Your task to perform on an android device: toggle airplane mode Image 0: 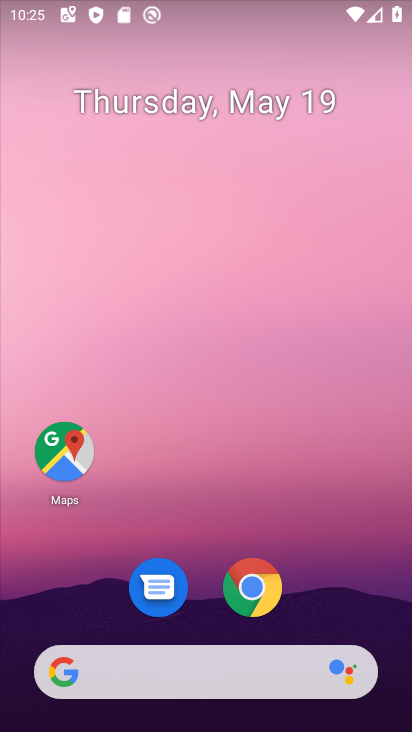
Step 0: drag from (362, 594) to (345, 190)
Your task to perform on an android device: toggle airplane mode Image 1: 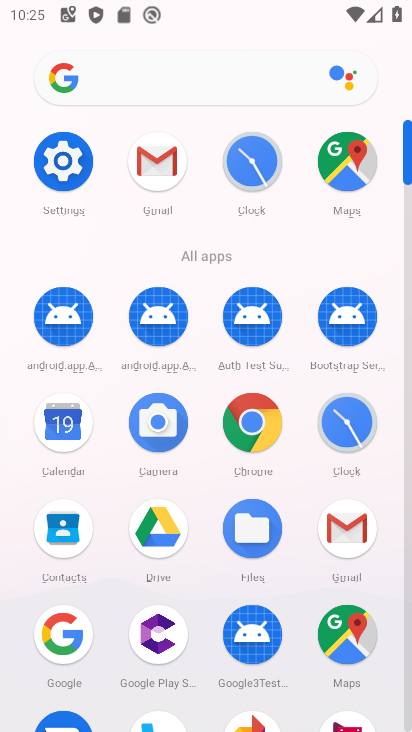
Step 1: click (46, 150)
Your task to perform on an android device: toggle airplane mode Image 2: 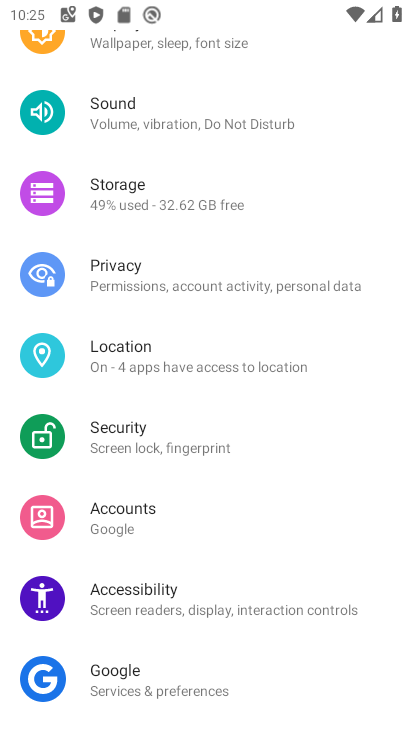
Step 2: drag from (131, 179) to (193, 614)
Your task to perform on an android device: toggle airplane mode Image 3: 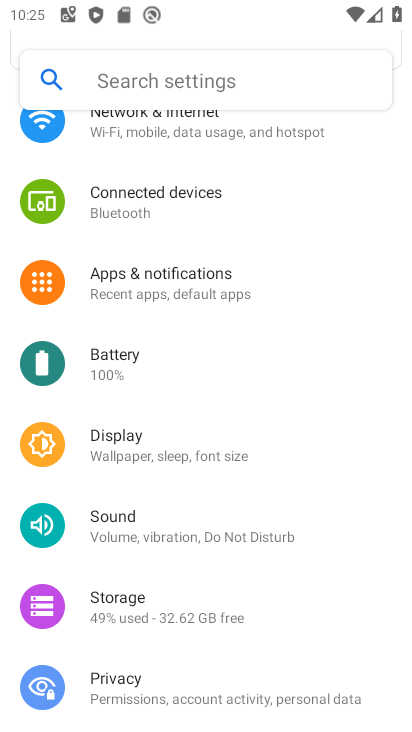
Step 3: drag from (216, 274) to (254, 519)
Your task to perform on an android device: toggle airplane mode Image 4: 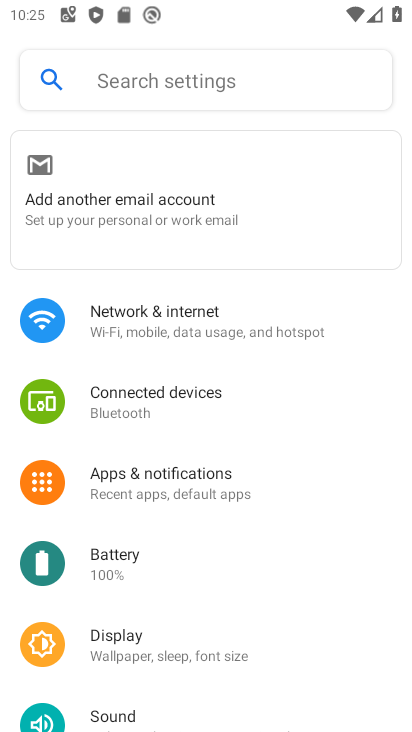
Step 4: click (219, 321)
Your task to perform on an android device: toggle airplane mode Image 5: 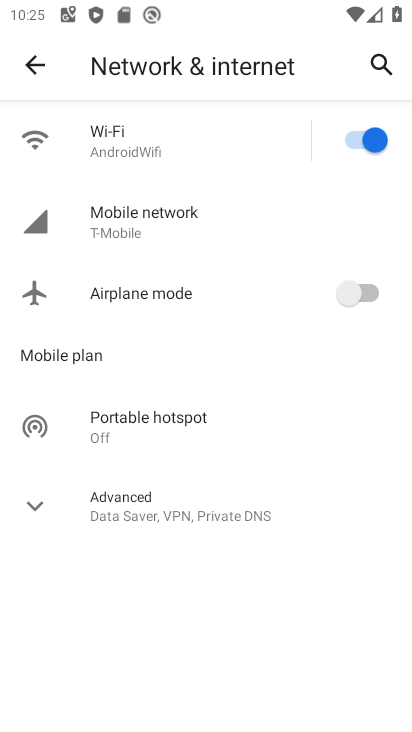
Step 5: click (155, 211)
Your task to perform on an android device: toggle airplane mode Image 6: 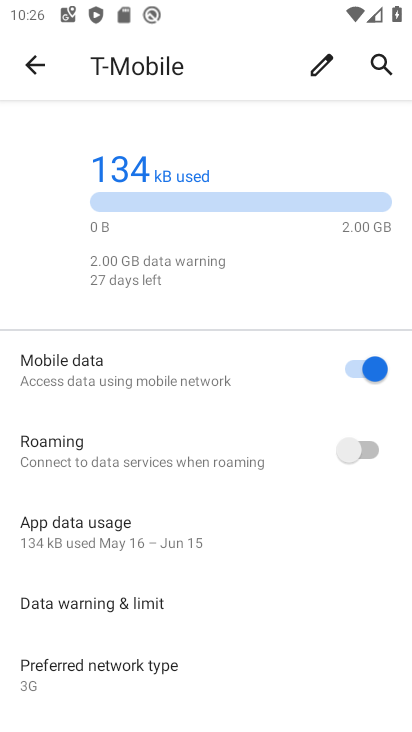
Step 6: click (29, 65)
Your task to perform on an android device: toggle airplane mode Image 7: 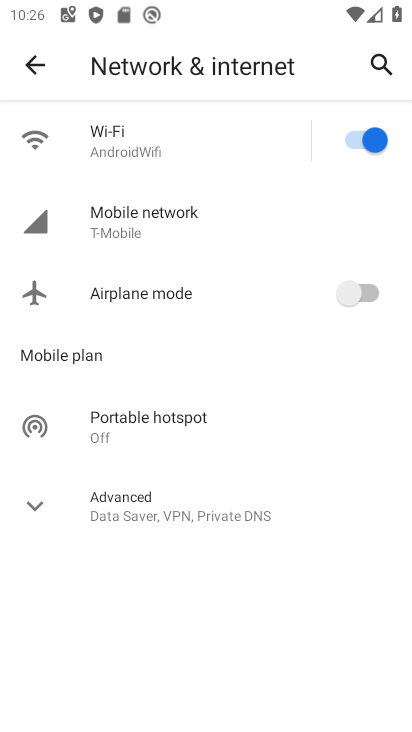
Step 7: click (371, 293)
Your task to perform on an android device: toggle airplane mode Image 8: 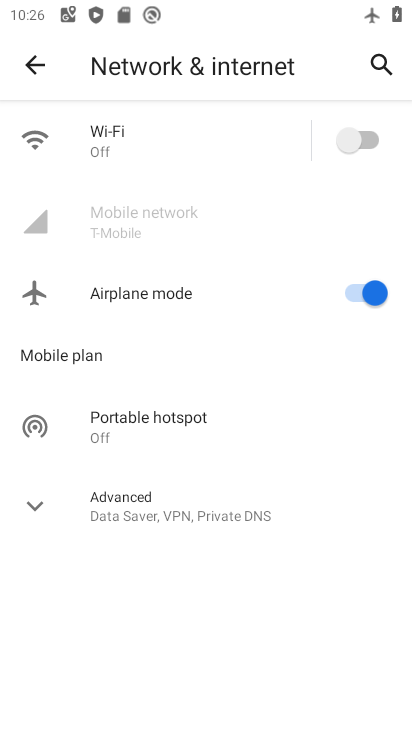
Step 8: task complete